Your task to perform on an android device: toggle javascript in the chrome app Image 0: 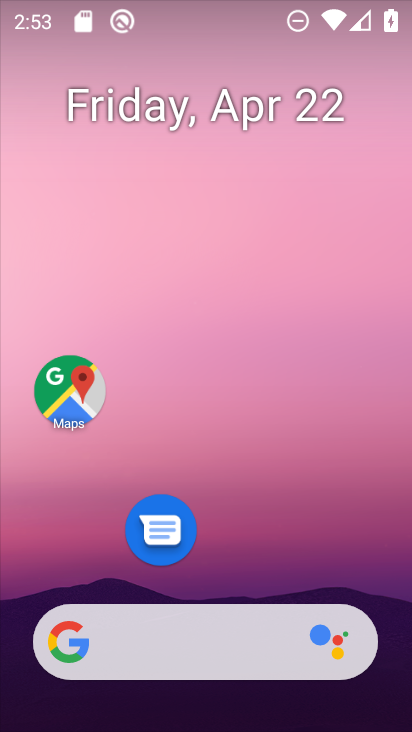
Step 0: drag from (285, 554) to (409, 90)
Your task to perform on an android device: toggle javascript in the chrome app Image 1: 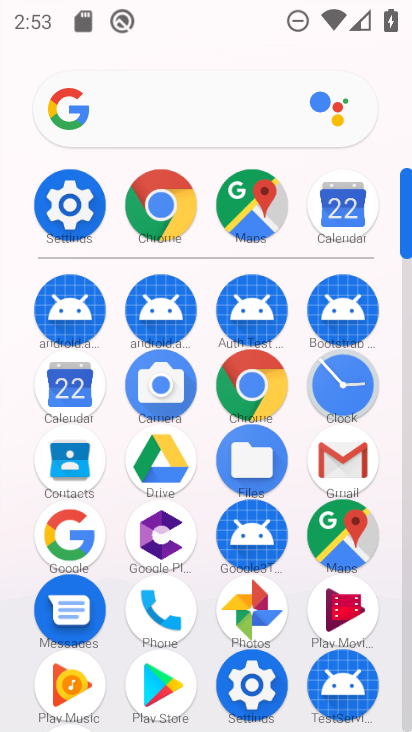
Step 1: click (164, 208)
Your task to perform on an android device: toggle javascript in the chrome app Image 2: 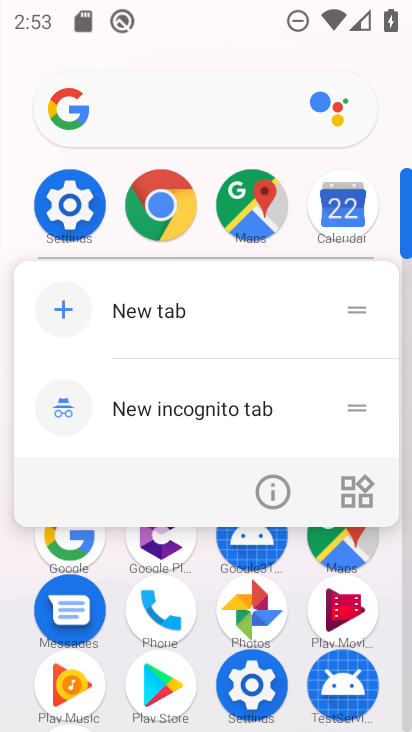
Step 2: click (165, 209)
Your task to perform on an android device: toggle javascript in the chrome app Image 3: 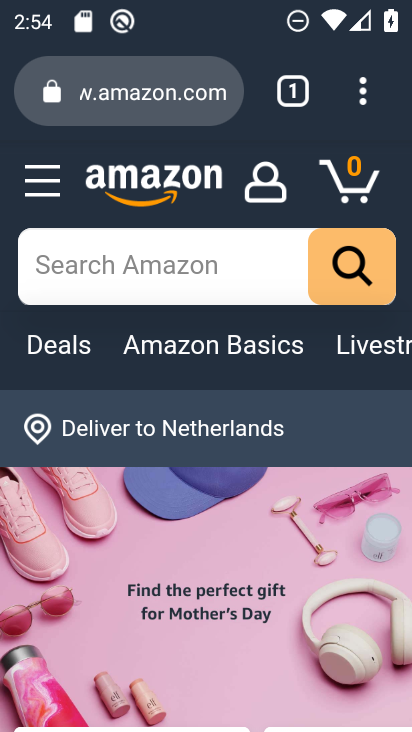
Step 3: click (362, 98)
Your task to perform on an android device: toggle javascript in the chrome app Image 4: 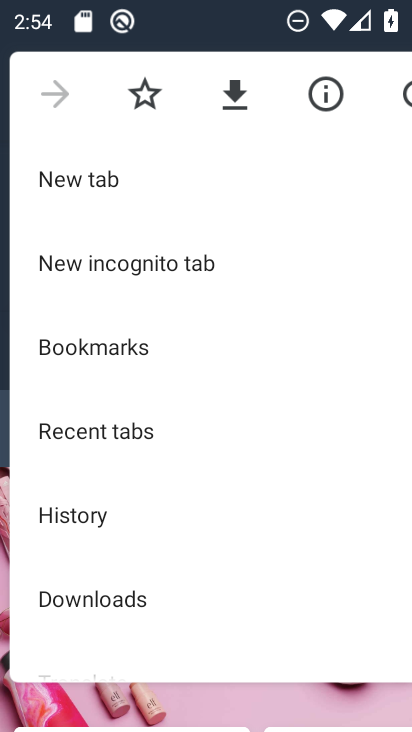
Step 4: drag from (209, 587) to (149, 98)
Your task to perform on an android device: toggle javascript in the chrome app Image 5: 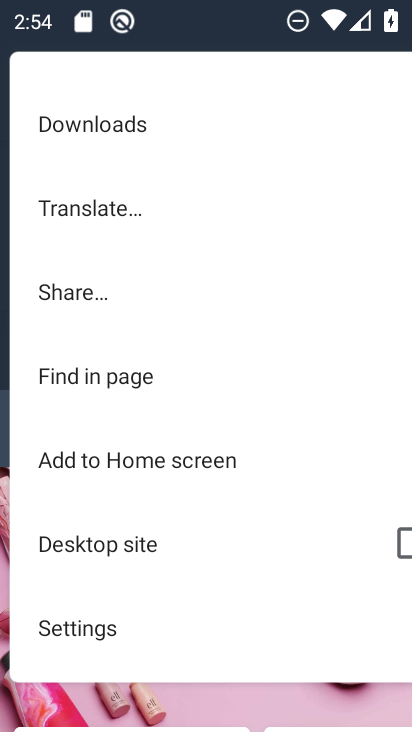
Step 5: click (79, 630)
Your task to perform on an android device: toggle javascript in the chrome app Image 6: 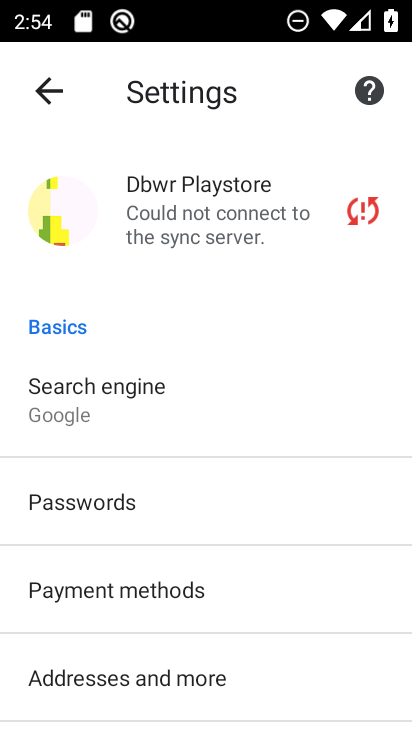
Step 6: drag from (241, 652) to (232, 295)
Your task to perform on an android device: toggle javascript in the chrome app Image 7: 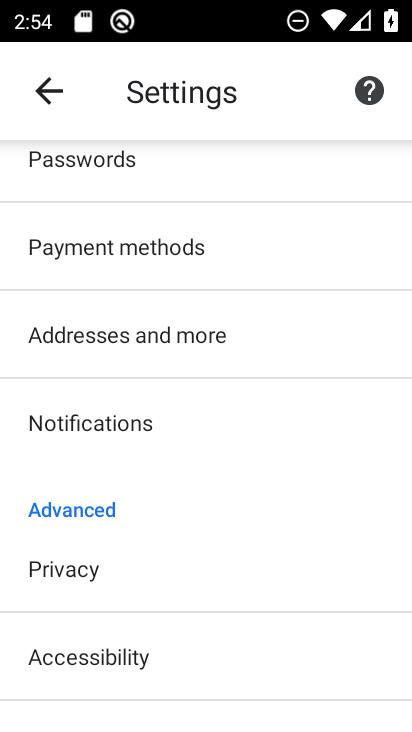
Step 7: drag from (240, 488) to (202, 184)
Your task to perform on an android device: toggle javascript in the chrome app Image 8: 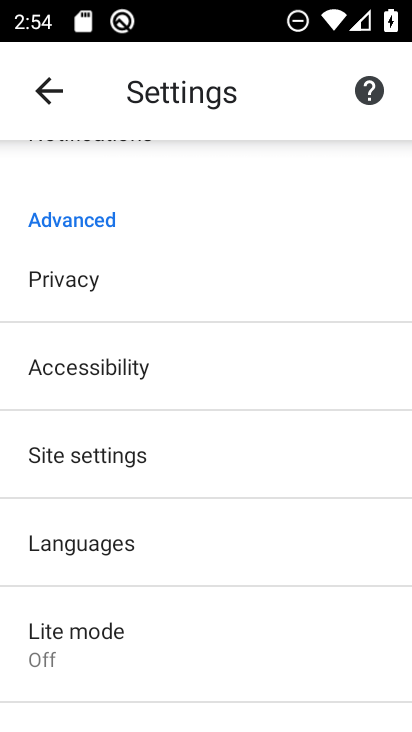
Step 8: click (80, 461)
Your task to perform on an android device: toggle javascript in the chrome app Image 9: 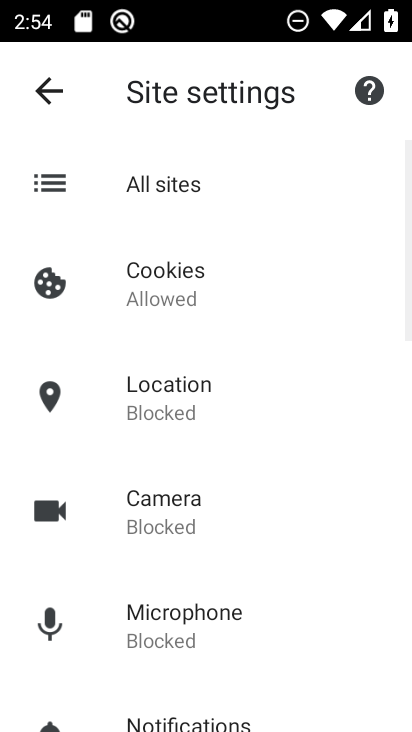
Step 9: drag from (275, 591) to (231, 253)
Your task to perform on an android device: toggle javascript in the chrome app Image 10: 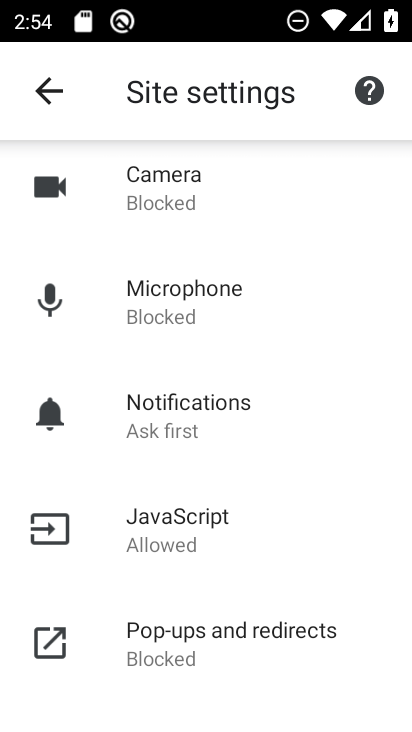
Step 10: click (187, 513)
Your task to perform on an android device: toggle javascript in the chrome app Image 11: 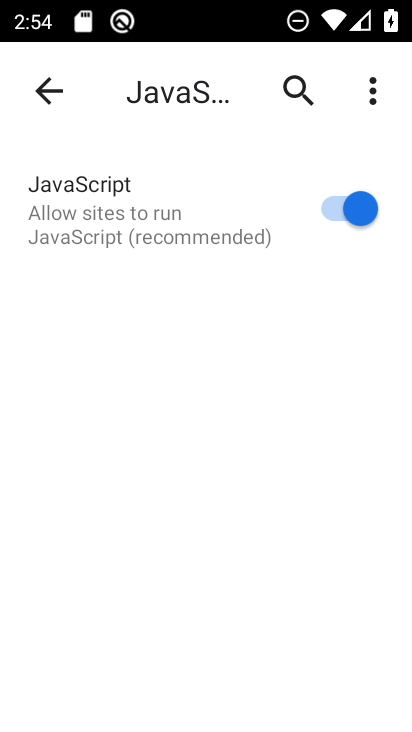
Step 11: click (349, 204)
Your task to perform on an android device: toggle javascript in the chrome app Image 12: 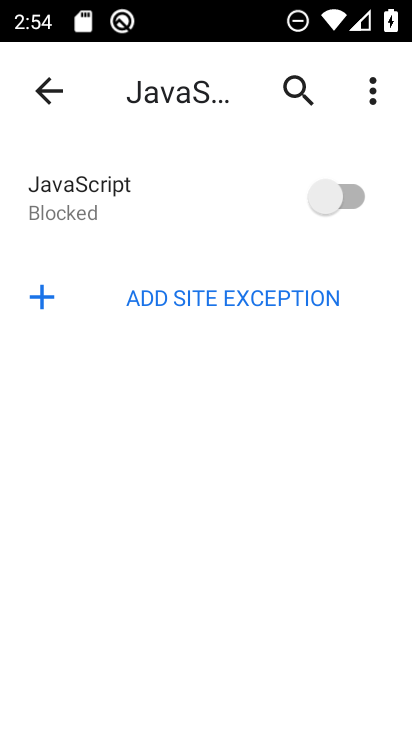
Step 12: task complete